Your task to perform on an android device: toggle notification dots Image 0: 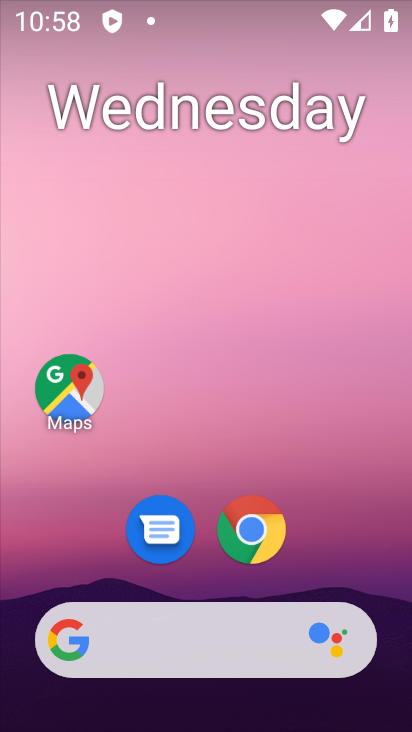
Step 0: drag from (380, 571) to (362, 220)
Your task to perform on an android device: toggle notification dots Image 1: 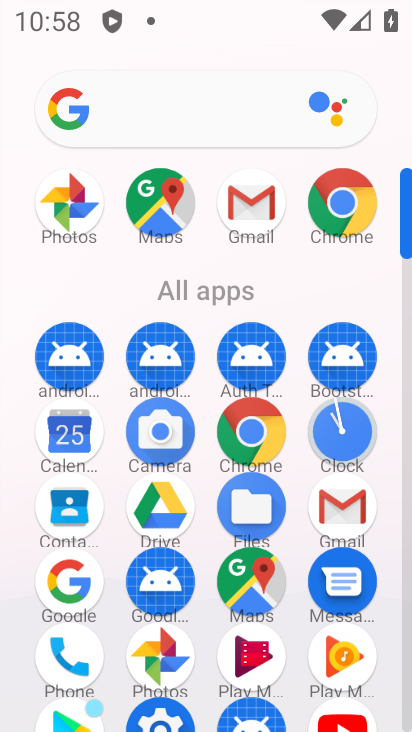
Step 1: drag from (391, 440) to (384, 329)
Your task to perform on an android device: toggle notification dots Image 2: 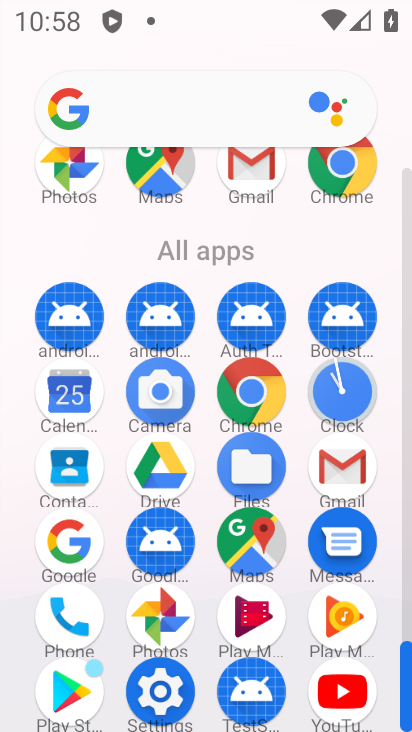
Step 2: click (171, 685)
Your task to perform on an android device: toggle notification dots Image 3: 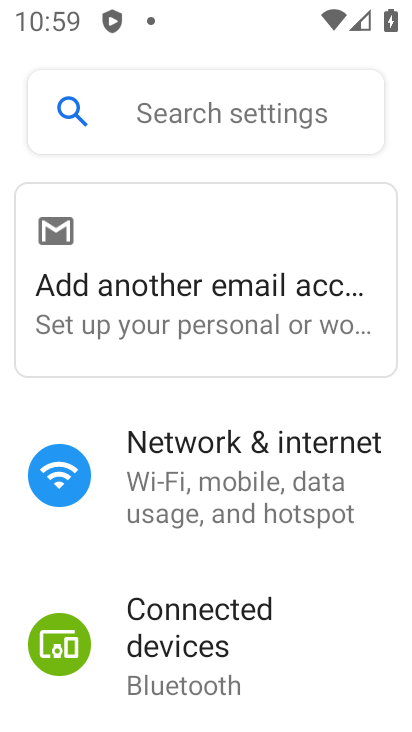
Step 3: drag from (344, 613) to (369, 509)
Your task to perform on an android device: toggle notification dots Image 4: 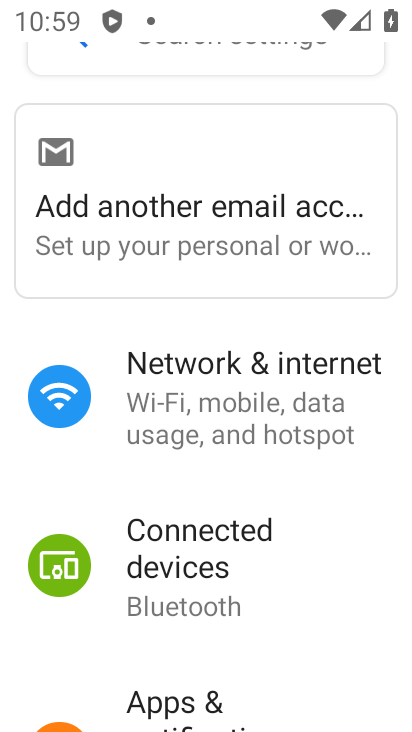
Step 4: drag from (353, 625) to (351, 527)
Your task to perform on an android device: toggle notification dots Image 5: 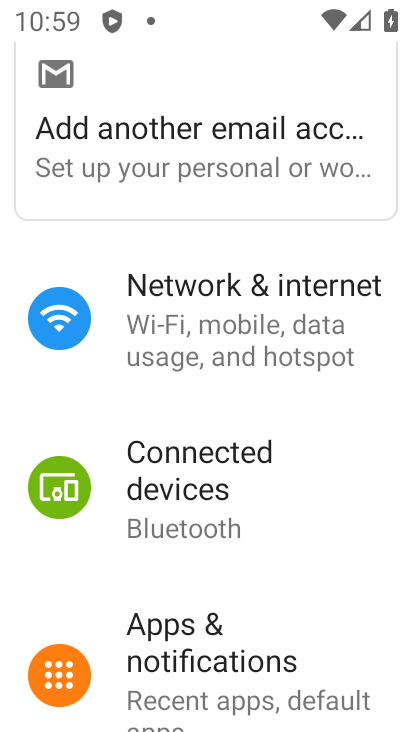
Step 5: drag from (349, 608) to (343, 510)
Your task to perform on an android device: toggle notification dots Image 6: 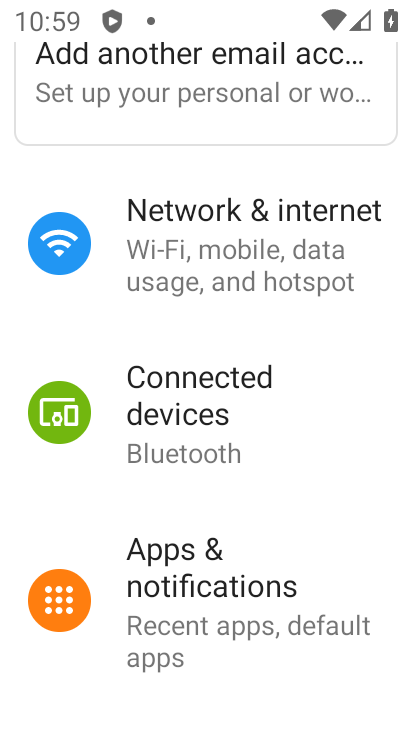
Step 6: drag from (342, 648) to (347, 520)
Your task to perform on an android device: toggle notification dots Image 7: 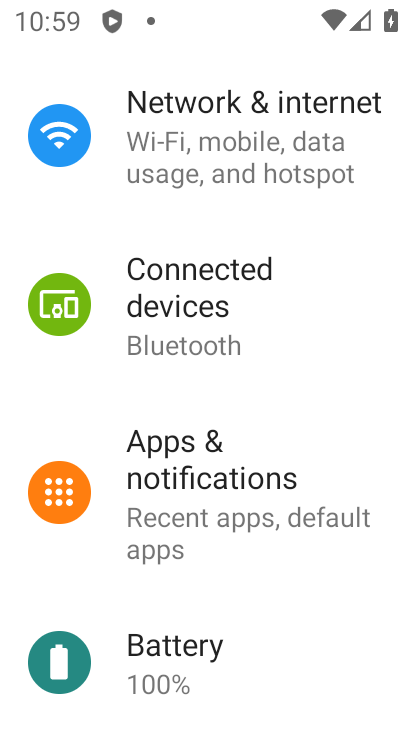
Step 7: drag from (346, 605) to (362, 503)
Your task to perform on an android device: toggle notification dots Image 8: 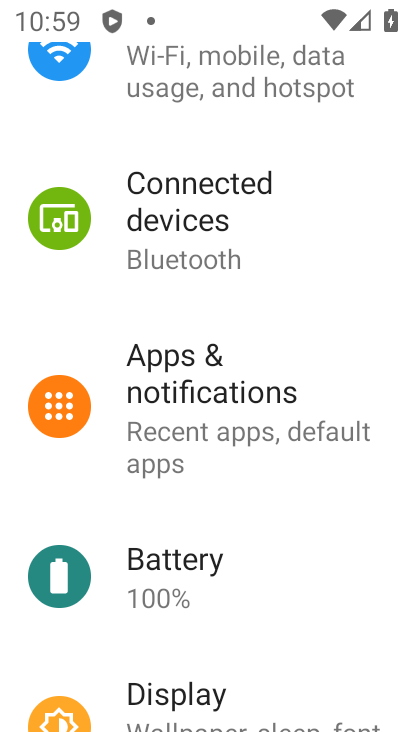
Step 8: drag from (355, 594) to (360, 519)
Your task to perform on an android device: toggle notification dots Image 9: 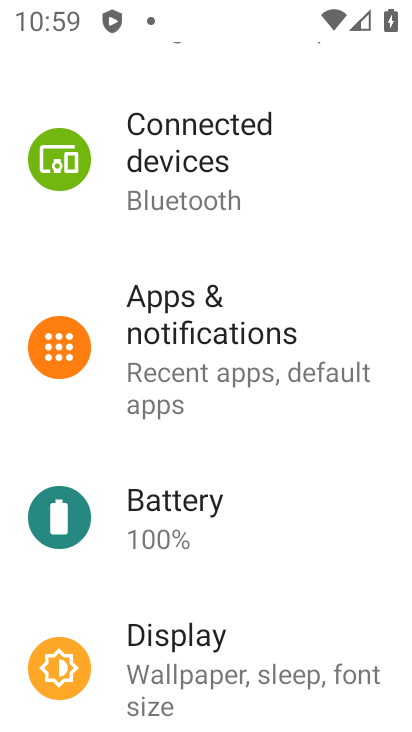
Step 9: drag from (350, 619) to (354, 540)
Your task to perform on an android device: toggle notification dots Image 10: 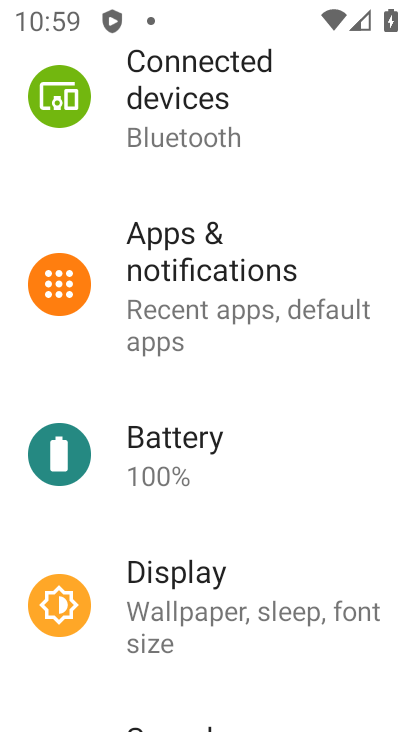
Step 10: drag from (347, 633) to (334, 542)
Your task to perform on an android device: toggle notification dots Image 11: 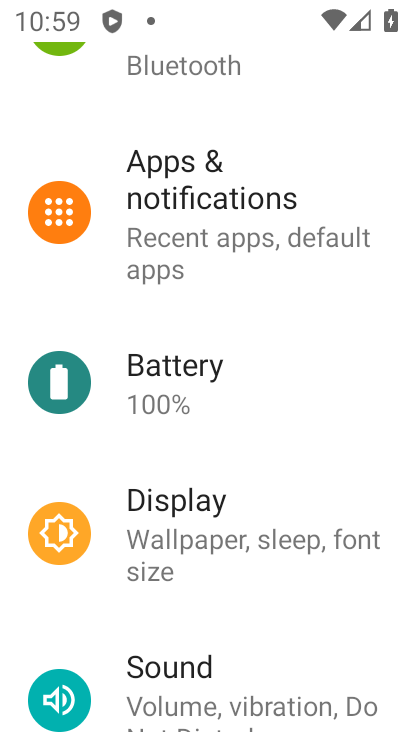
Step 11: drag from (326, 643) to (316, 554)
Your task to perform on an android device: toggle notification dots Image 12: 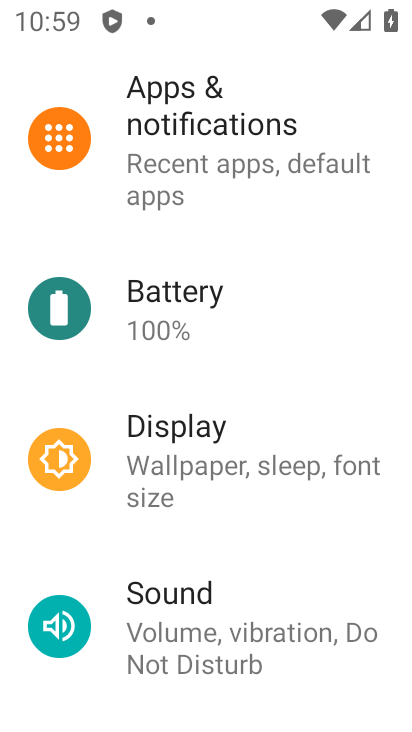
Step 12: drag from (321, 517) to (317, 418)
Your task to perform on an android device: toggle notification dots Image 13: 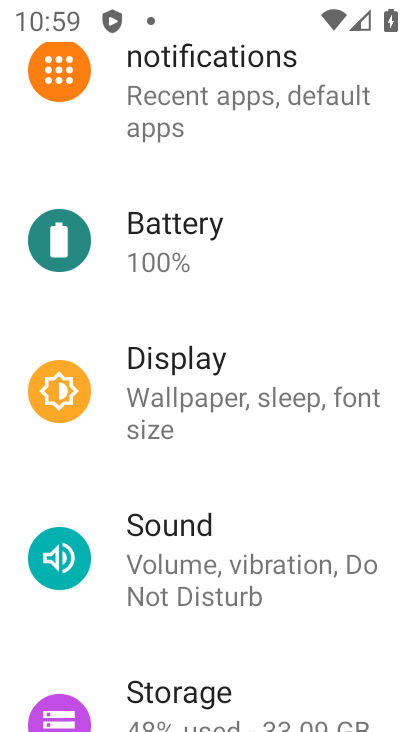
Step 13: drag from (336, 551) to (318, 471)
Your task to perform on an android device: toggle notification dots Image 14: 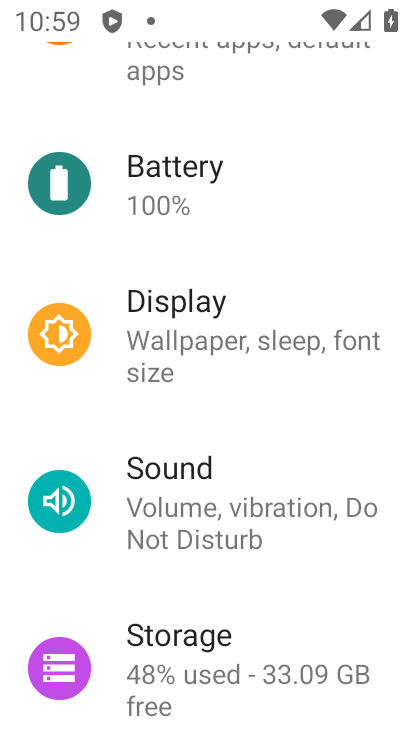
Step 14: drag from (326, 585) to (324, 488)
Your task to perform on an android device: toggle notification dots Image 15: 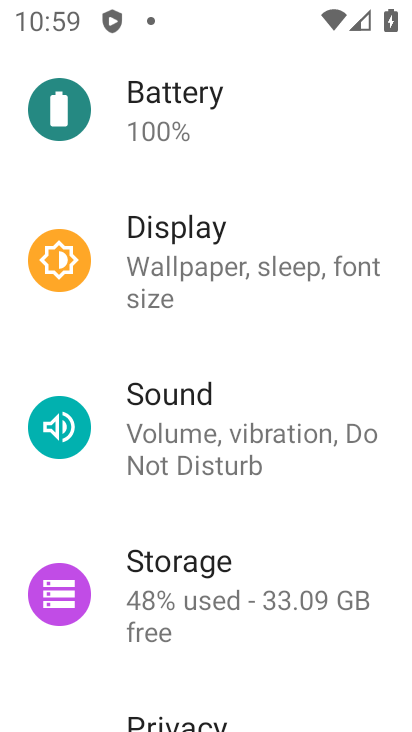
Step 15: drag from (316, 600) to (325, 495)
Your task to perform on an android device: toggle notification dots Image 16: 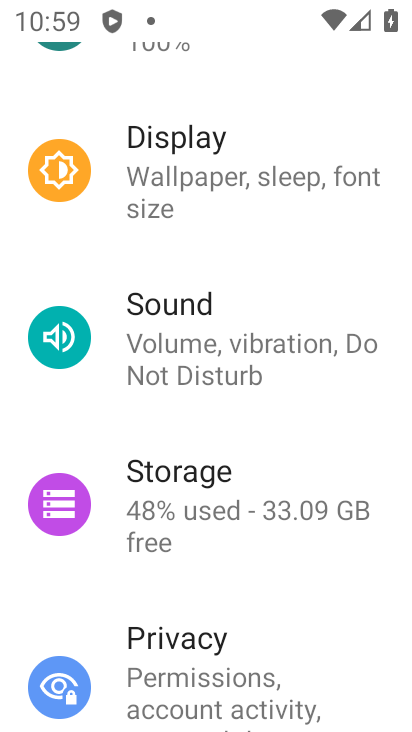
Step 16: drag from (297, 600) to (286, 508)
Your task to perform on an android device: toggle notification dots Image 17: 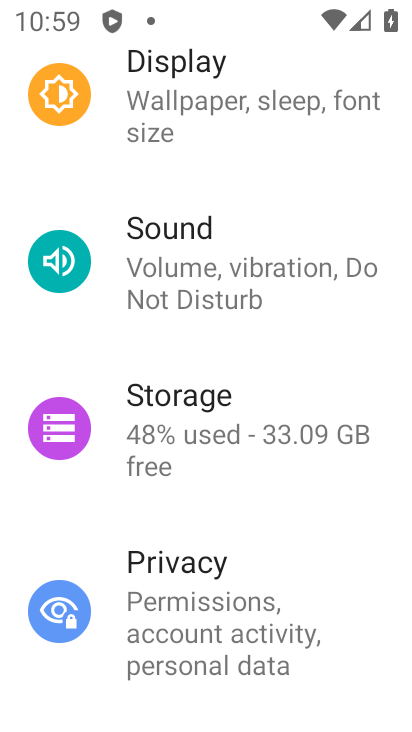
Step 17: drag from (316, 380) to (303, 493)
Your task to perform on an android device: toggle notification dots Image 18: 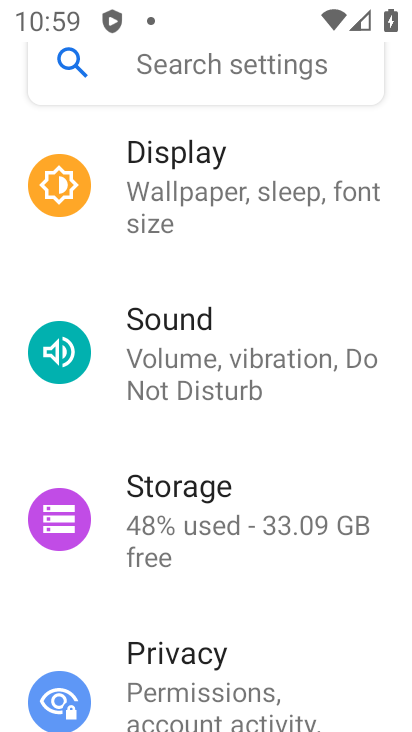
Step 18: drag from (305, 316) to (287, 459)
Your task to perform on an android device: toggle notification dots Image 19: 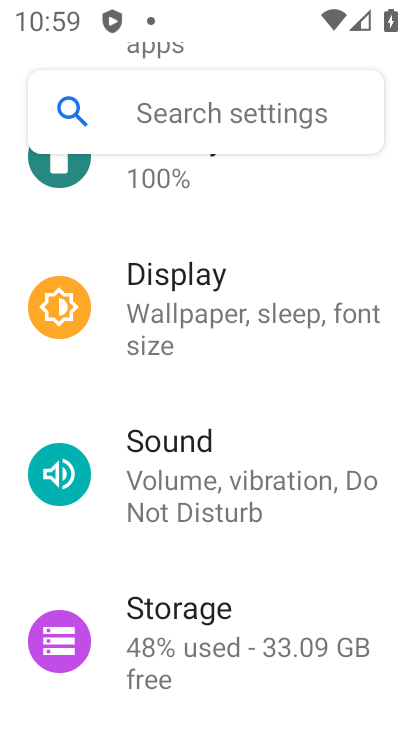
Step 19: drag from (303, 361) to (307, 469)
Your task to perform on an android device: toggle notification dots Image 20: 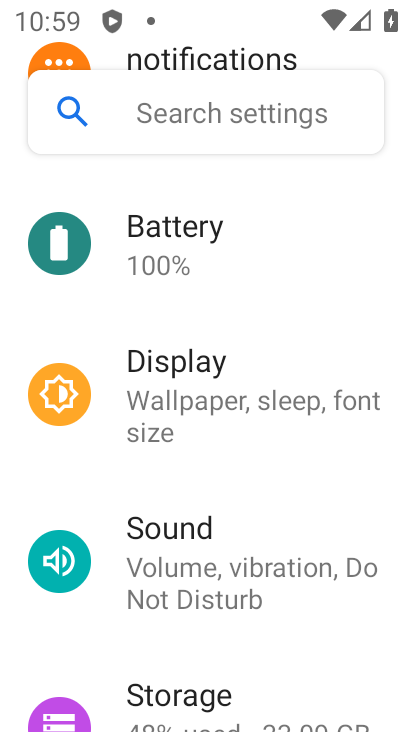
Step 20: drag from (323, 323) to (346, 487)
Your task to perform on an android device: toggle notification dots Image 21: 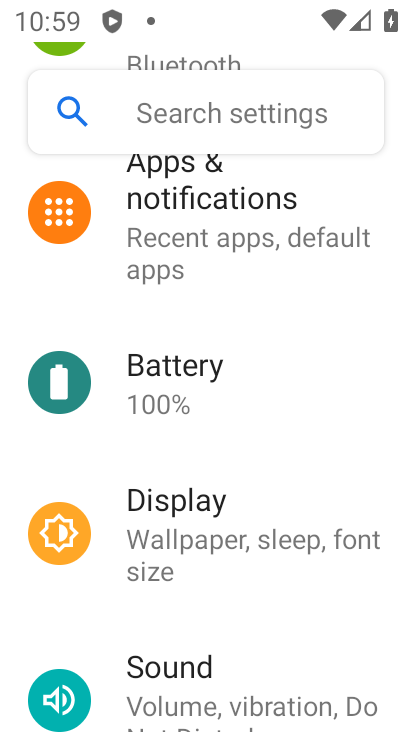
Step 21: drag from (351, 343) to (352, 467)
Your task to perform on an android device: toggle notification dots Image 22: 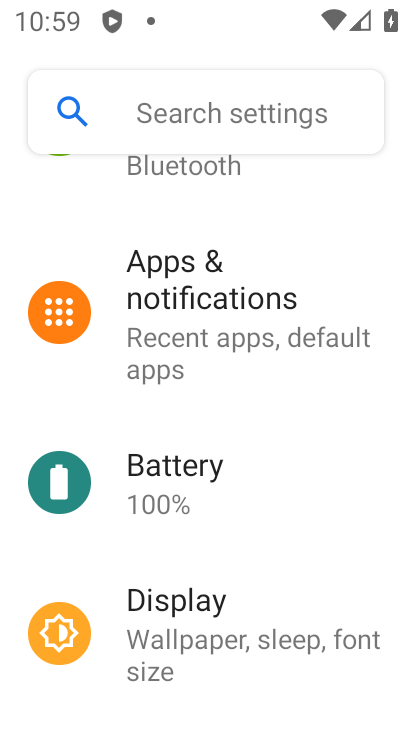
Step 22: click (319, 312)
Your task to perform on an android device: toggle notification dots Image 23: 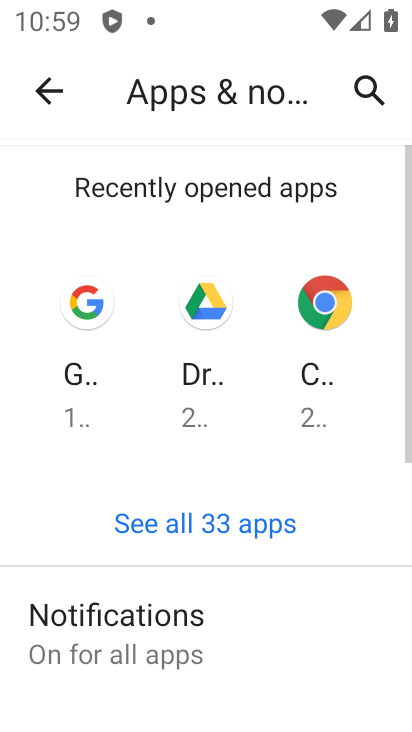
Step 23: drag from (330, 510) to (344, 326)
Your task to perform on an android device: toggle notification dots Image 24: 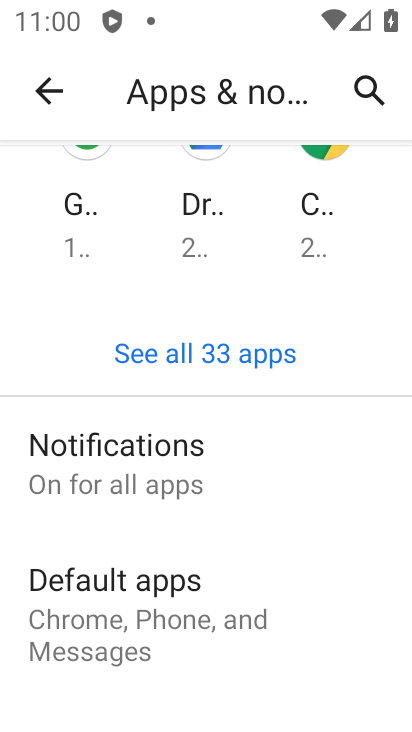
Step 24: drag from (314, 514) to (317, 387)
Your task to perform on an android device: toggle notification dots Image 25: 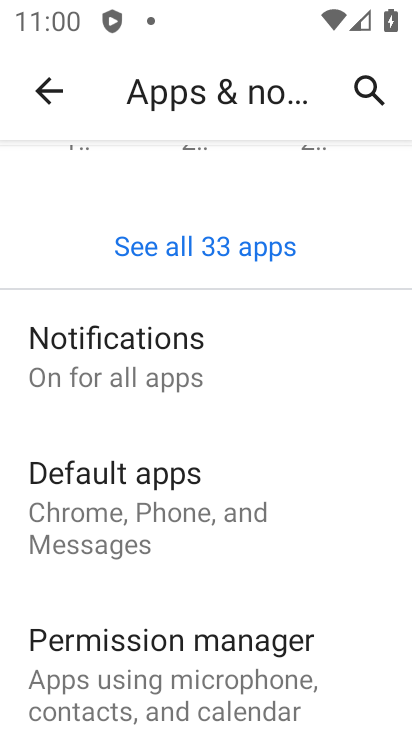
Step 25: click (177, 372)
Your task to perform on an android device: toggle notification dots Image 26: 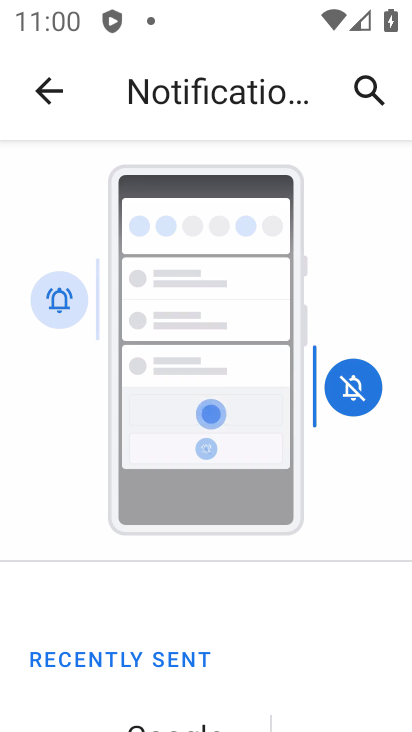
Step 26: drag from (293, 580) to (283, 420)
Your task to perform on an android device: toggle notification dots Image 27: 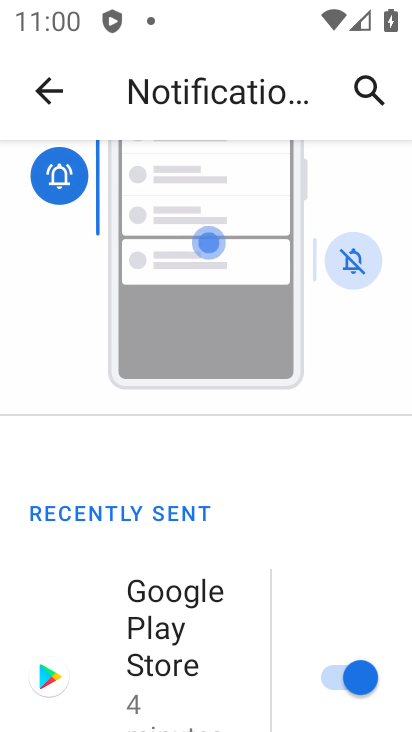
Step 27: drag from (247, 668) to (252, 457)
Your task to perform on an android device: toggle notification dots Image 28: 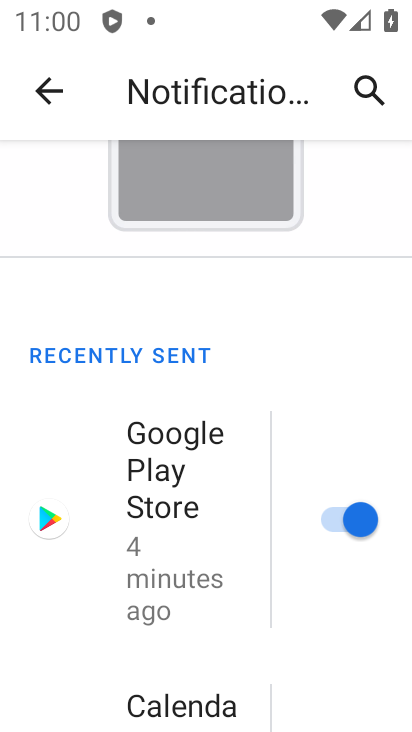
Step 28: drag from (233, 636) to (240, 452)
Your task to perform on an android device: toggle notification dots Image 29: 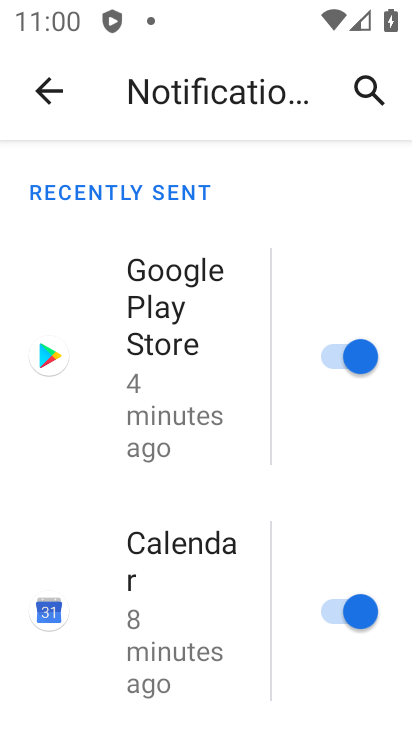
Step 29: drag from (240, 641) to (249, 485)
Your task to perform on an android device: toggle notification dots Image 30: 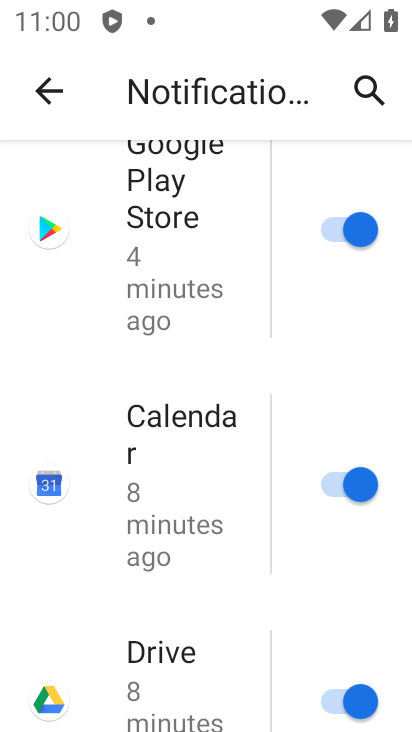
Step 30: drag from (299, 612) to (295, 511)
Your task to perform on an android device: toggle notification dots Image 31: 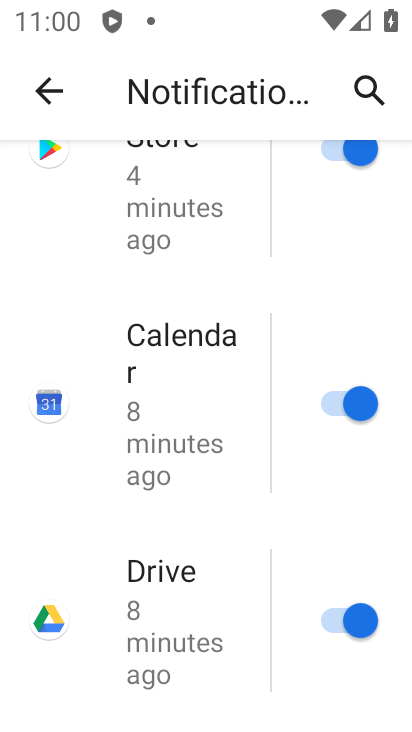
Step 31: drag from (298, 642) to (319, 468)
Your task to perform on an android device: toggle notification dots Image 32: 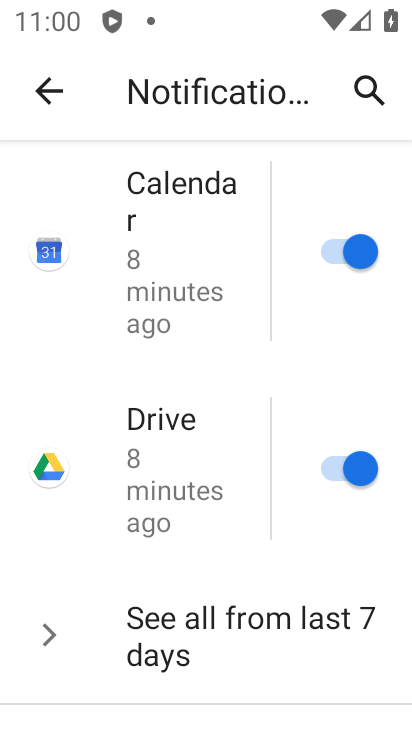
Step 32: drag from (282, 656) to (304, 496)
Your task to perform on an android device: toggle notification dots Image 33: 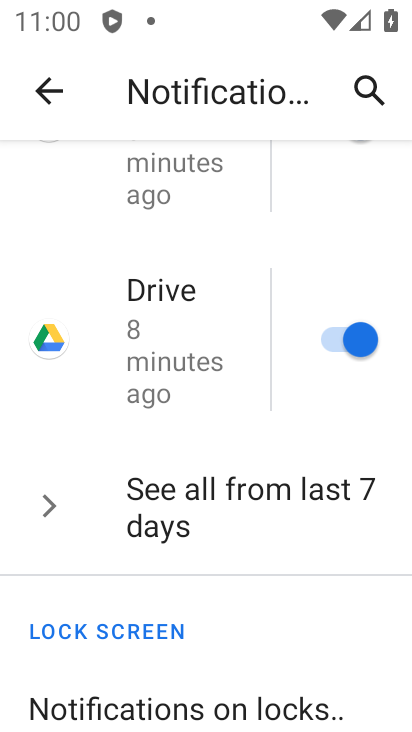
Step 33: drag from (297, 651) to (304, 427)
Your task to perform on an android device: toggle notification dots Image 34: 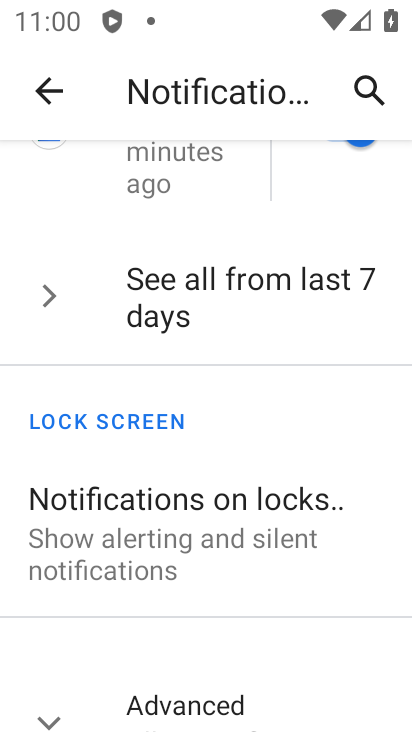
Step 34: drag from (283, 634) to (272, 452)
Your task to perform on an android device: toggle notification dots Image 35: 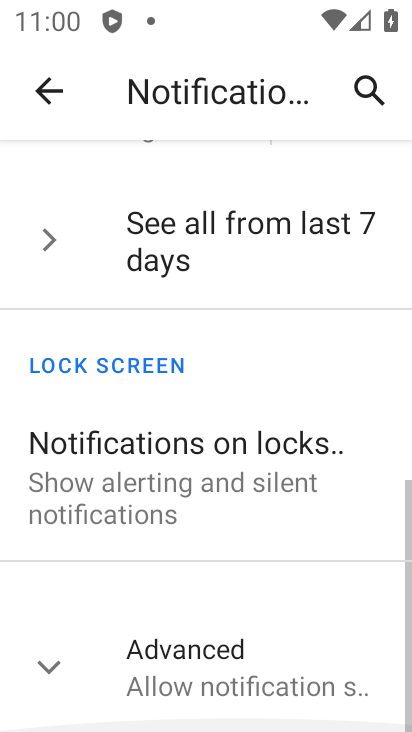
Step 35: click (260, 649)
Your task to perform on an android device: toggle notification dots Image 36: 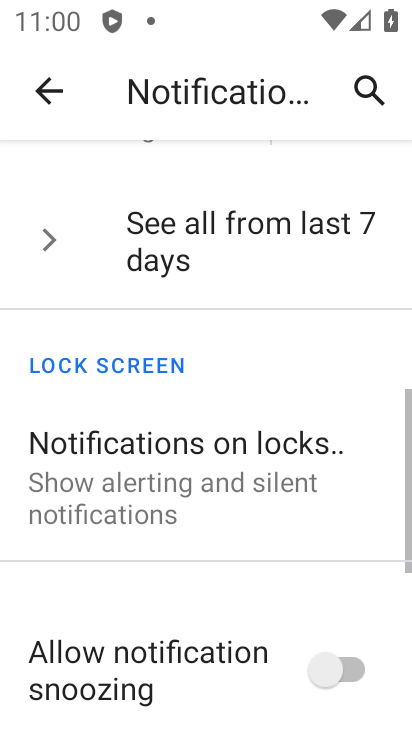
Step 36: drag from (264, 636) to (271, 480)
Your task to perform on an android device: toggle notification dots Image 37: 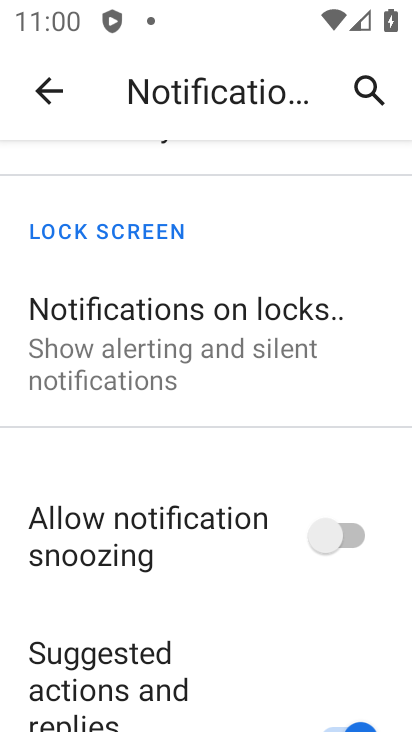
Step 37: drag from (270, 669) to (280, 444)
Your task to perform on an android device: toggle notification dots Image 38: 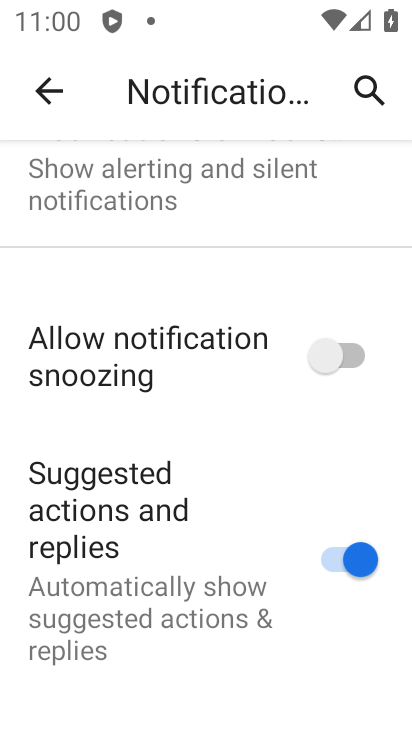
Step 38: drag from (292, 675) to (296, 450)
Your task to perform on an android device: toggle notification dots Image 39: 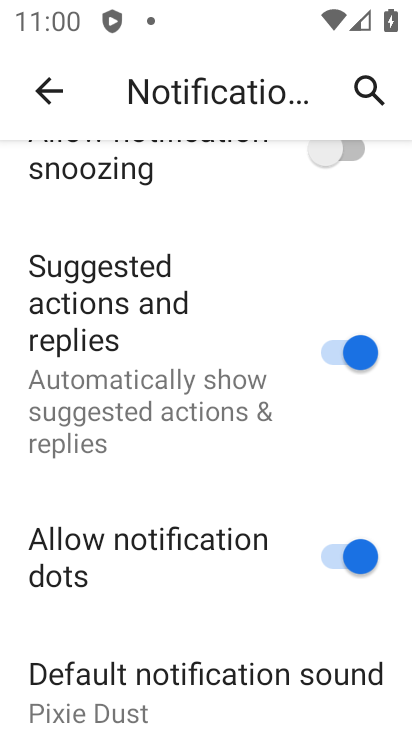
Step 39: click (367, 556)
Your task to perform on an android device: toggle notification dots Image 40: 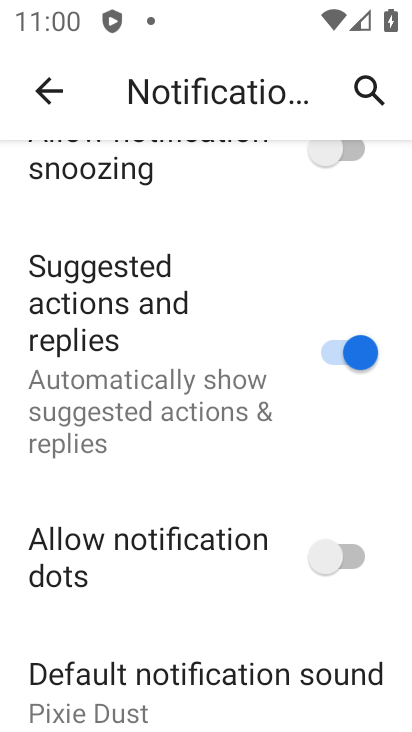
Step 40: task complete